Your task to perform on an android device: What is the recent news? Image 0: 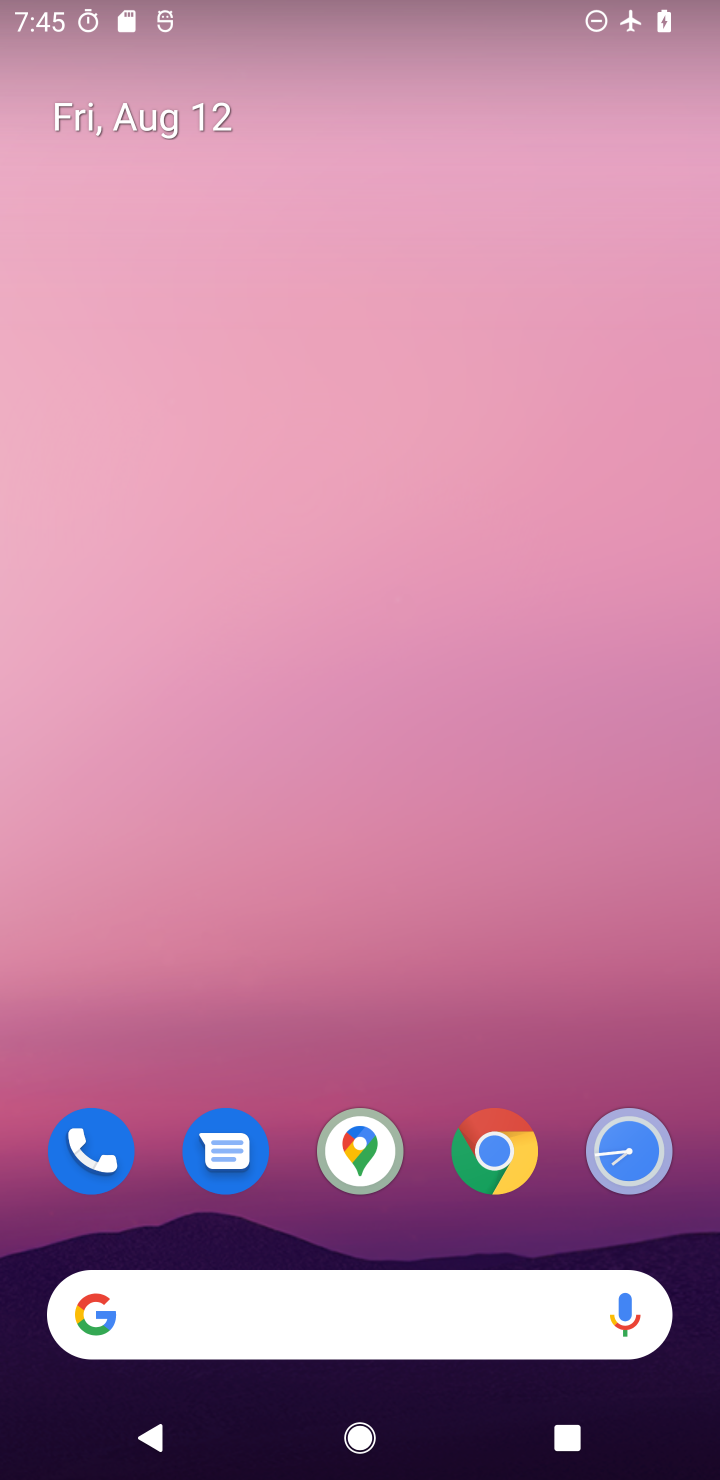
Step 0: drag from (462, 367) to (466, 56)
Your task to perform on an android device: What is the recent news? Image 1: 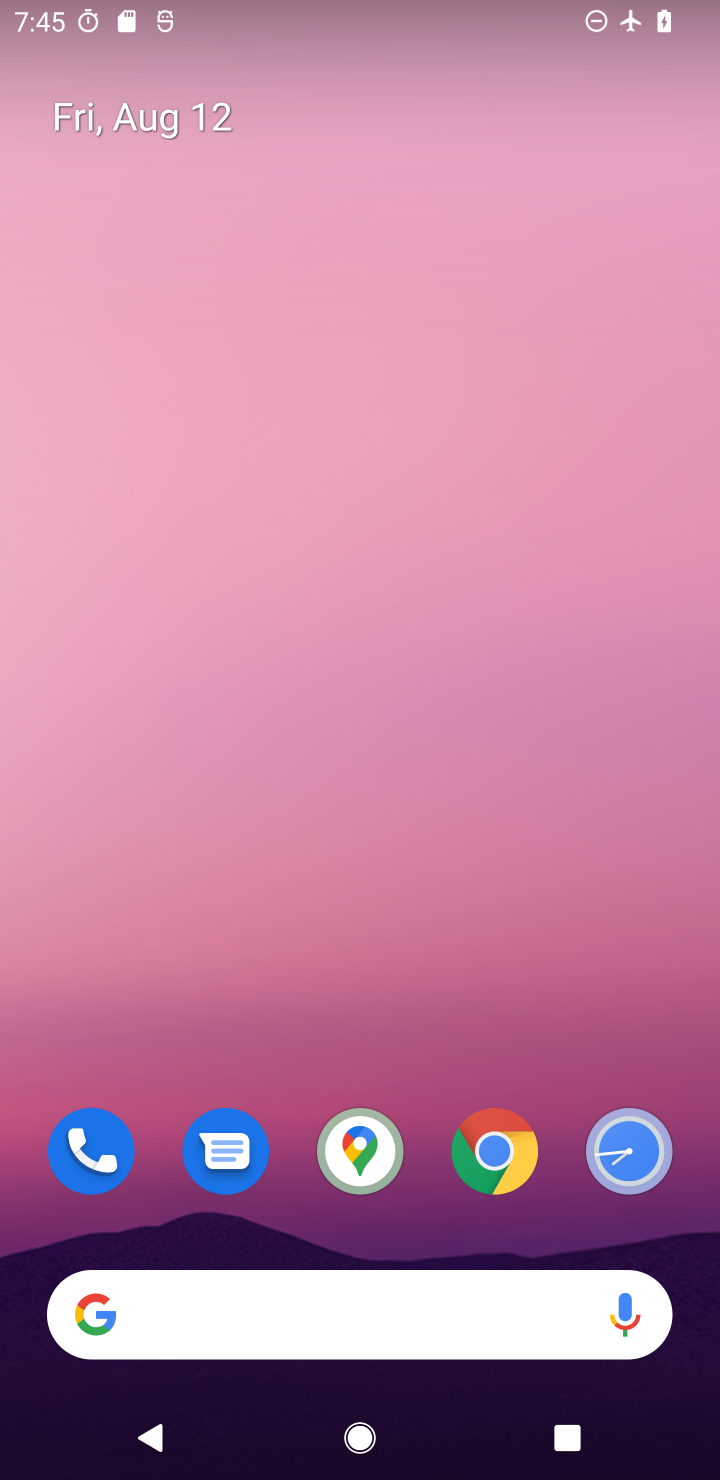
Step 1: drag from (436, 1043) to (433, 0)
Your task to perform on an android device: What is the recent news? Image 2: 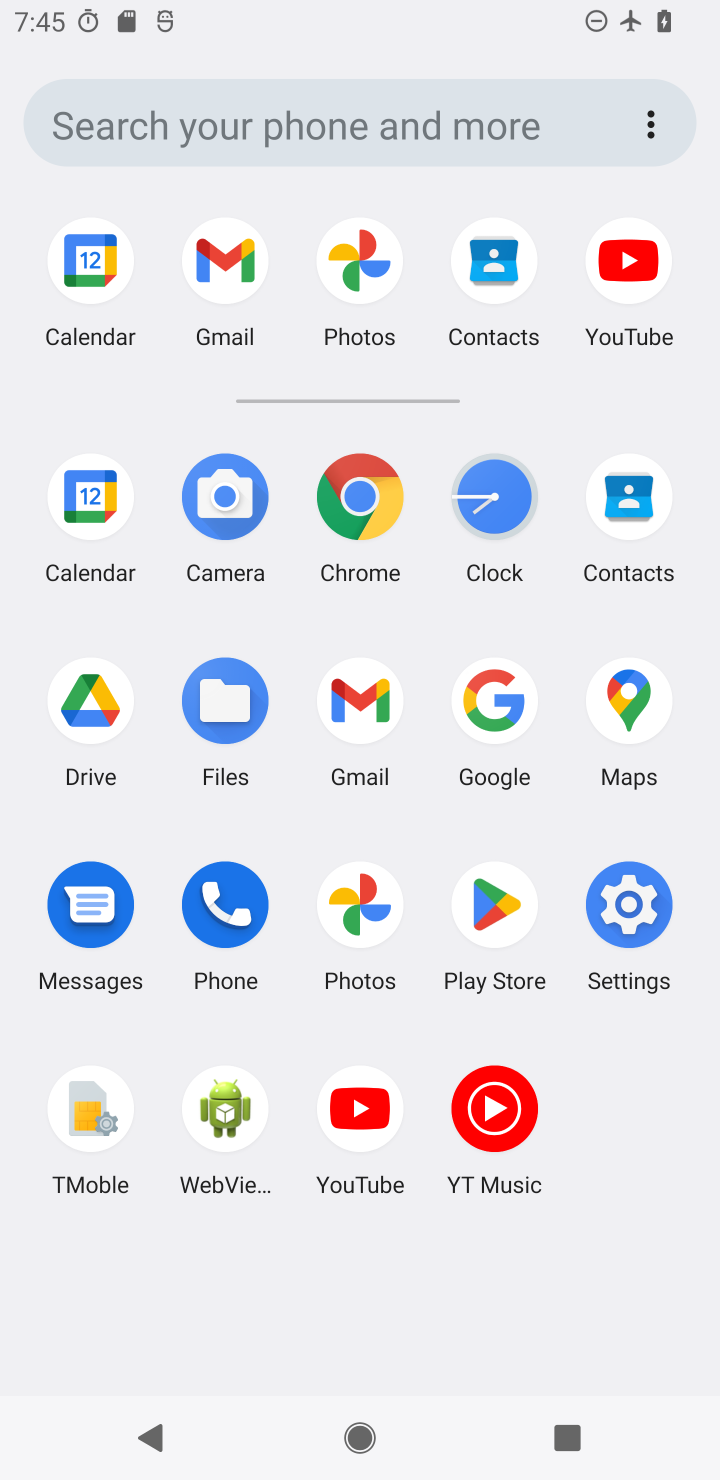
Step 2: click (334, 489)
Your task to perform on an android device: What is the recent news? Image 3: 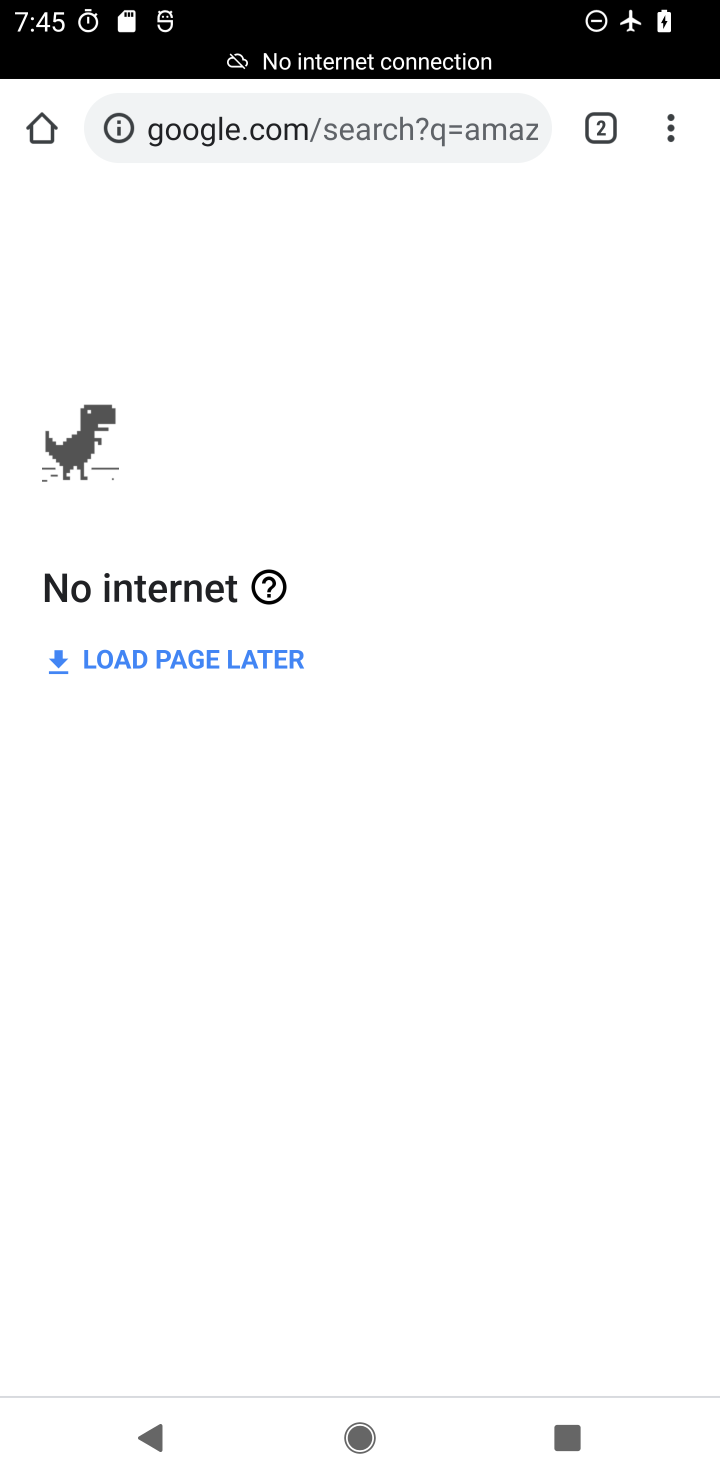
Step 3: click (399, 151)
Your task to perform on an android device: What is the recent news? Image 4: 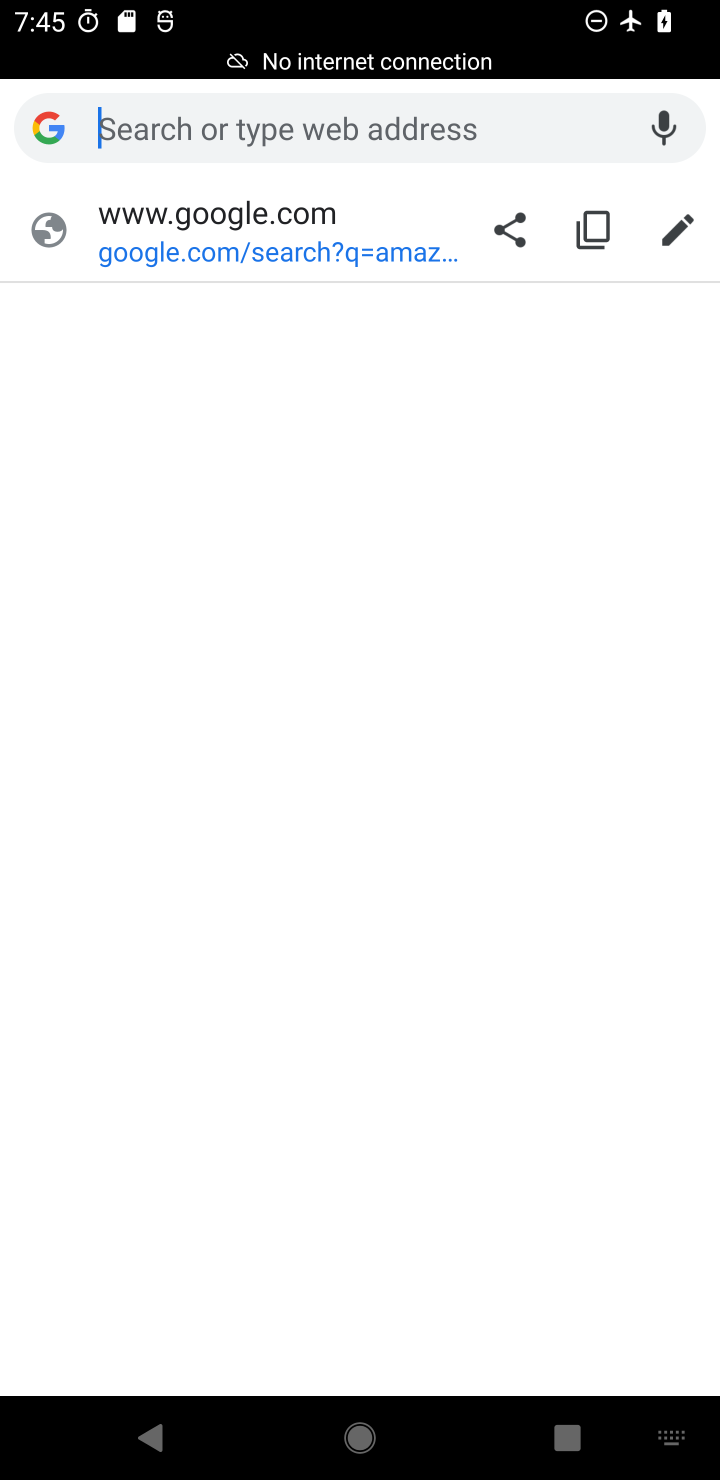
Step 4: type "news"
Your task to perform on an android device: What is the recent news? Image 5: 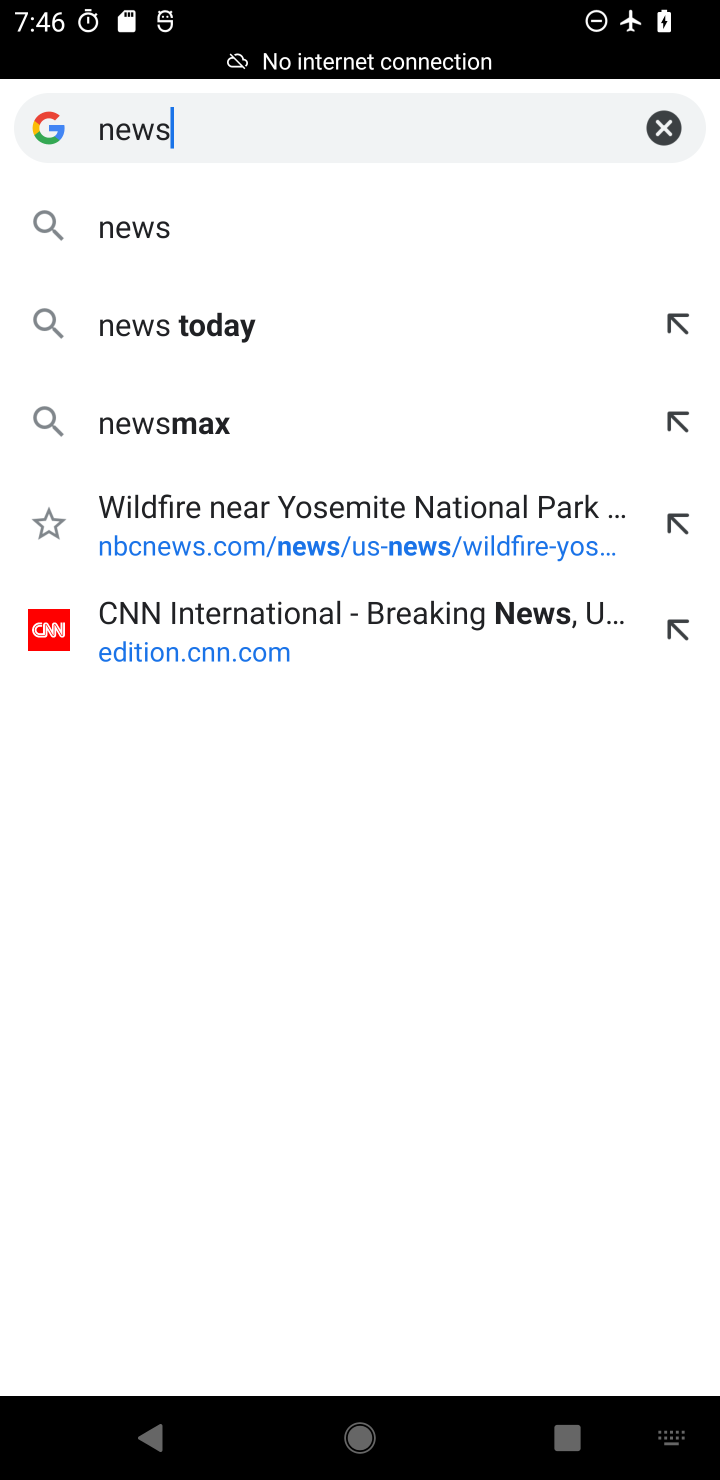
Step 5: click (130, 232)
Your task to perform on an android device: What is the recent news? Image 6: 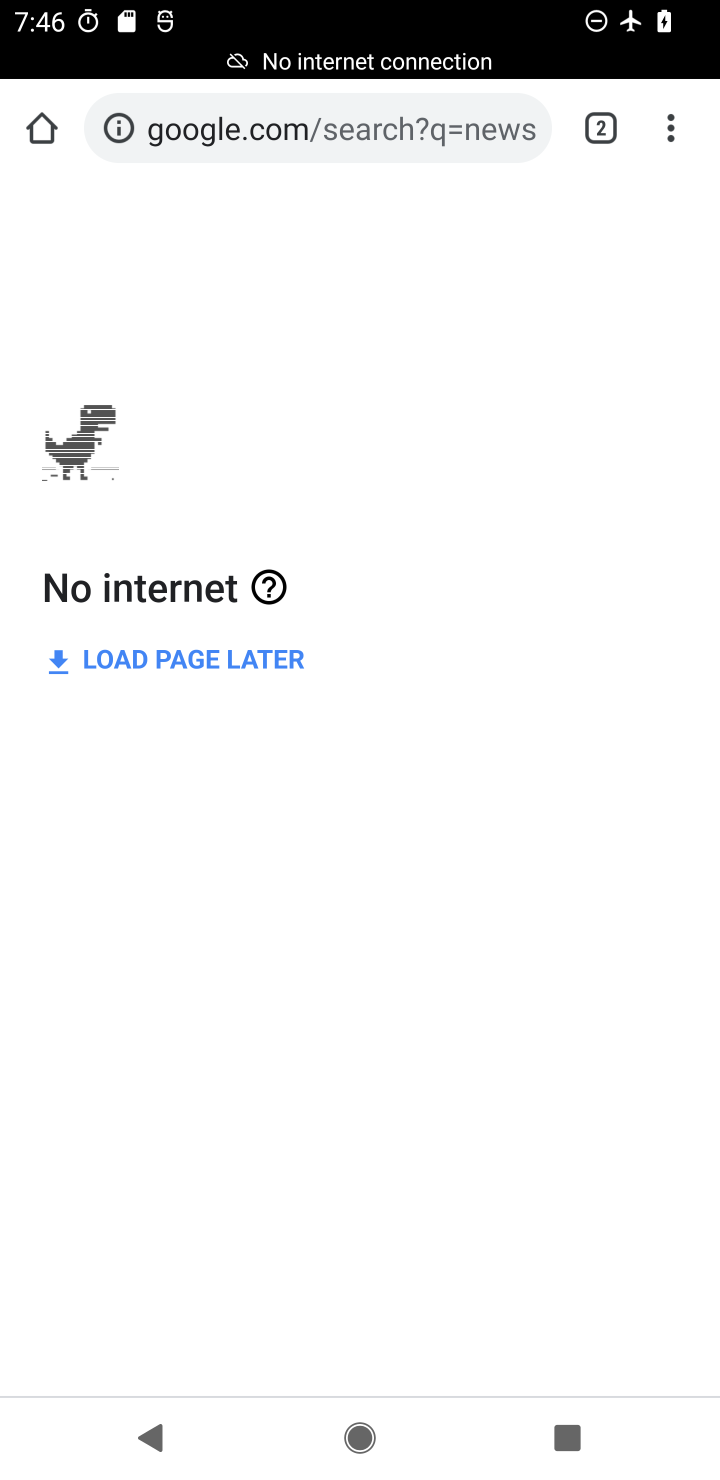
Step 6: task complete